Your task to perform on an android device: turn off notifications in google photos Image 0: 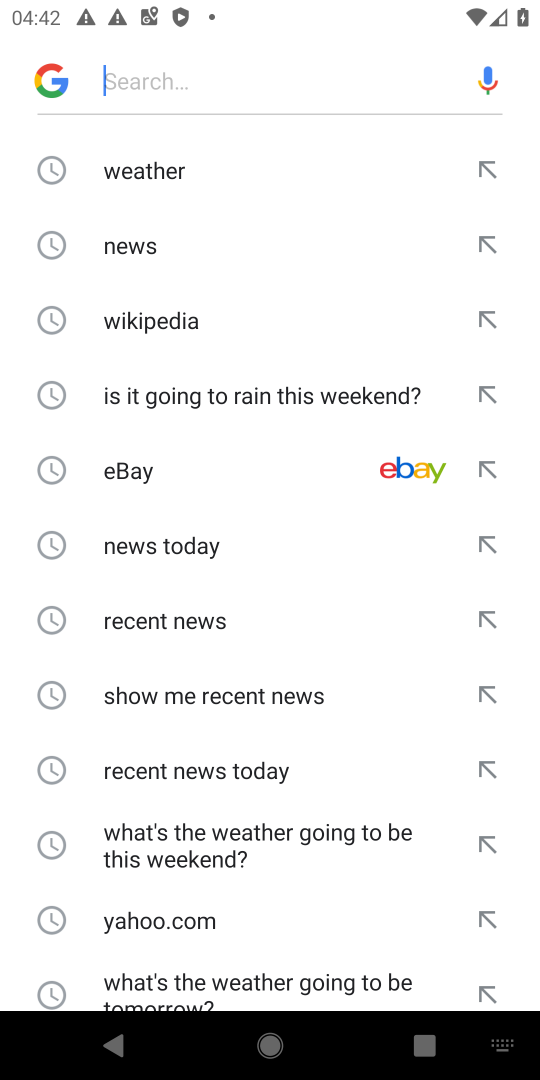
Step 0: press back button
Your task to perform on an android device: turn off notifications in google photos Image 1: 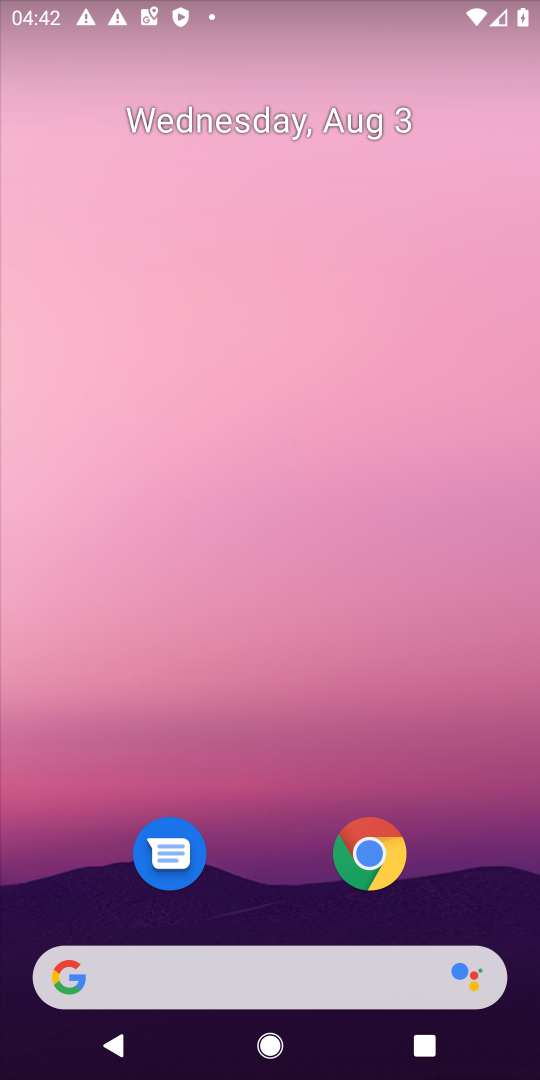
Step 1: drag from (518, 914) to (334, 0)
Your task to perform on an android device: turn off notifications in google photos Image 2: 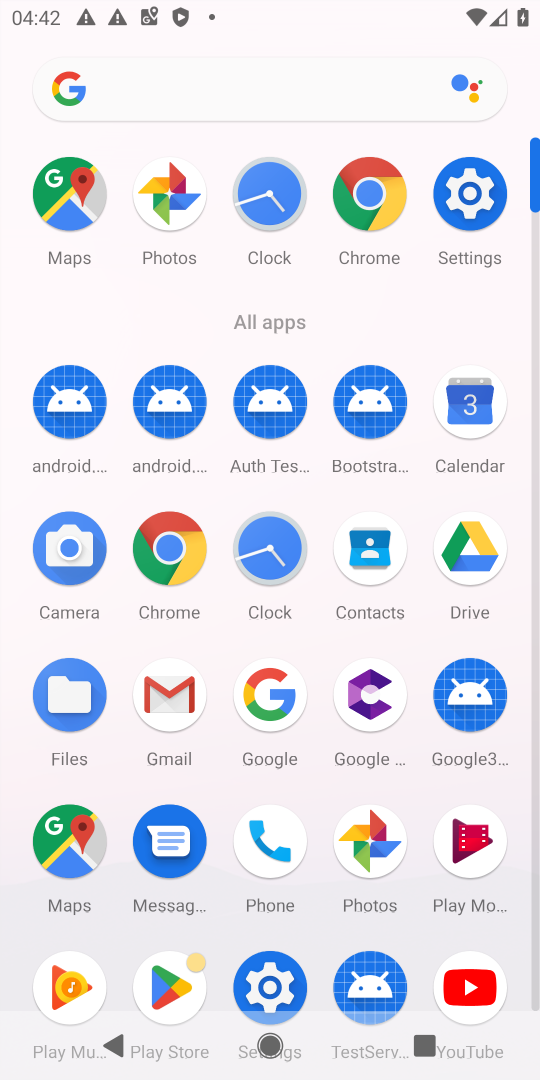
Step 2: click (362, 840)
Your task to perform on an android device: turn off notifications in google photos Image 3: 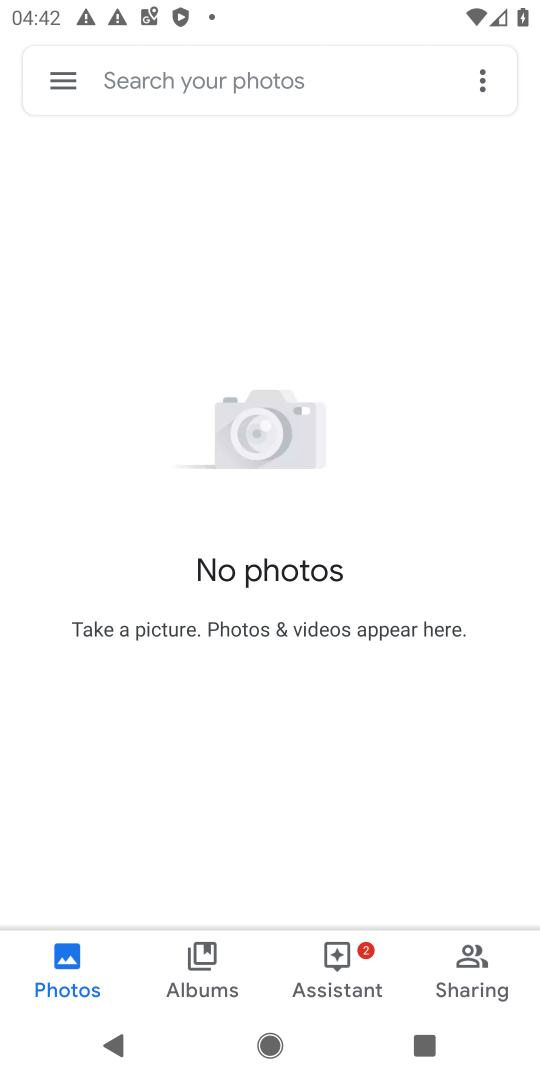
Step 3: click (70, 87)
Your task to perform on an android device: turn off notifications in google photos Image 4: 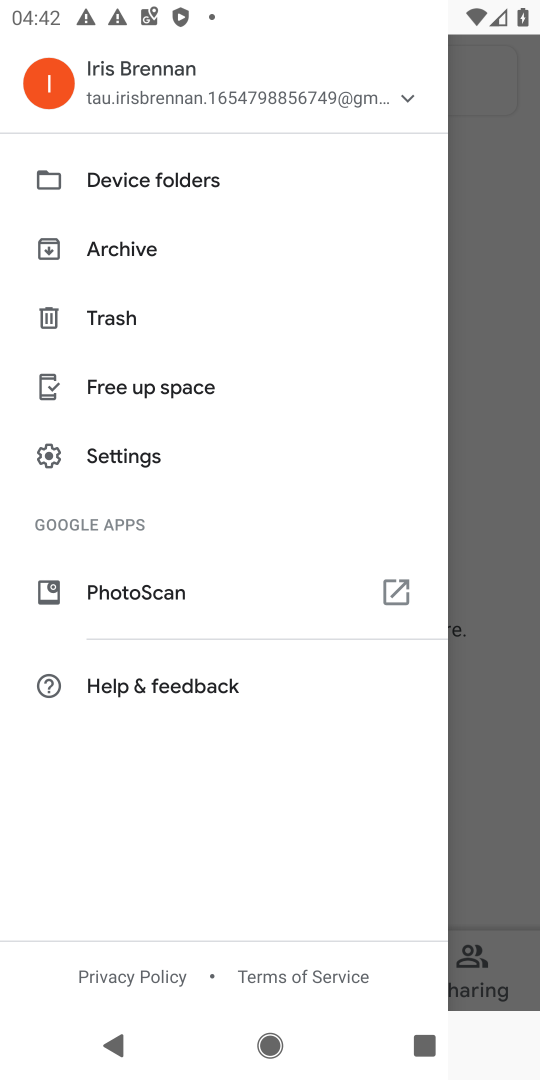
Step 4: click (151, 460)
Your task to perform on an android device: turn off notifications in google photos Image 5: 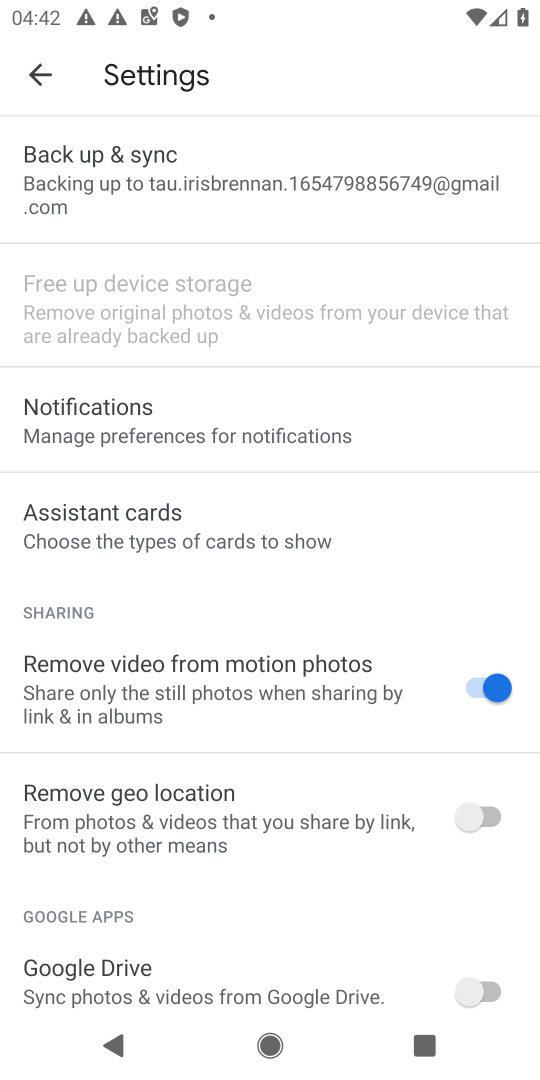
Step 5: click (201, 434)
Your task to perform on an android device: turn off notifications in google photos Image 6: 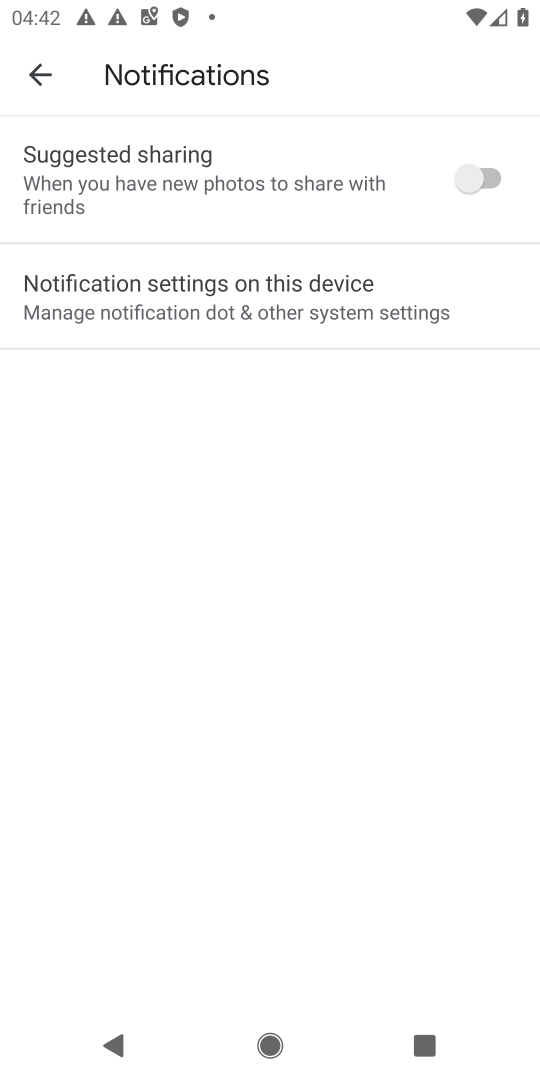
Step 6: click (456, 329)
Your task to perform on an android device: turn off notifications in google photos Image 7: 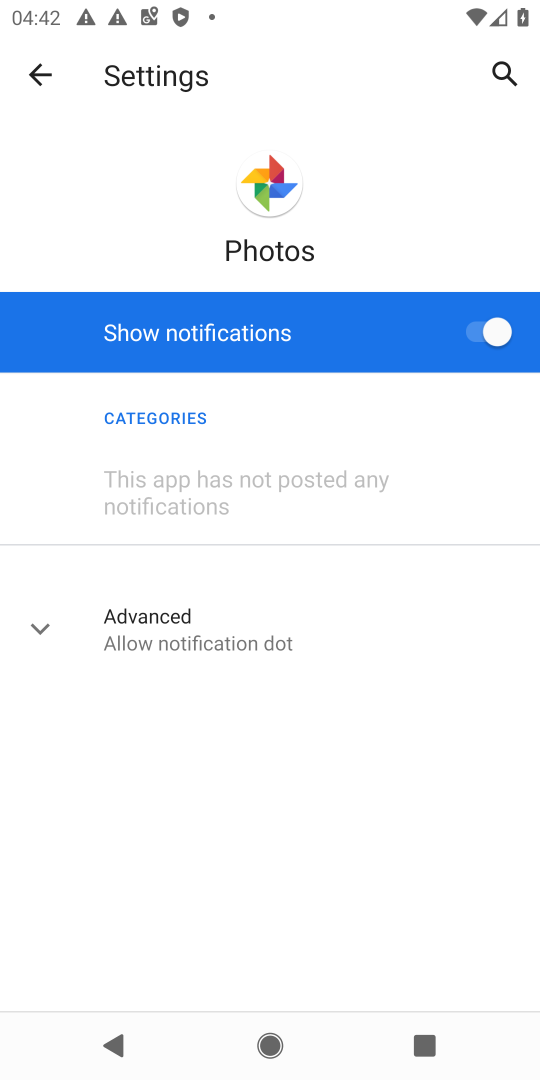
Step 7: click (498, 331)
Your task to perform on an android device: turn off notifications in google photos Image 8: 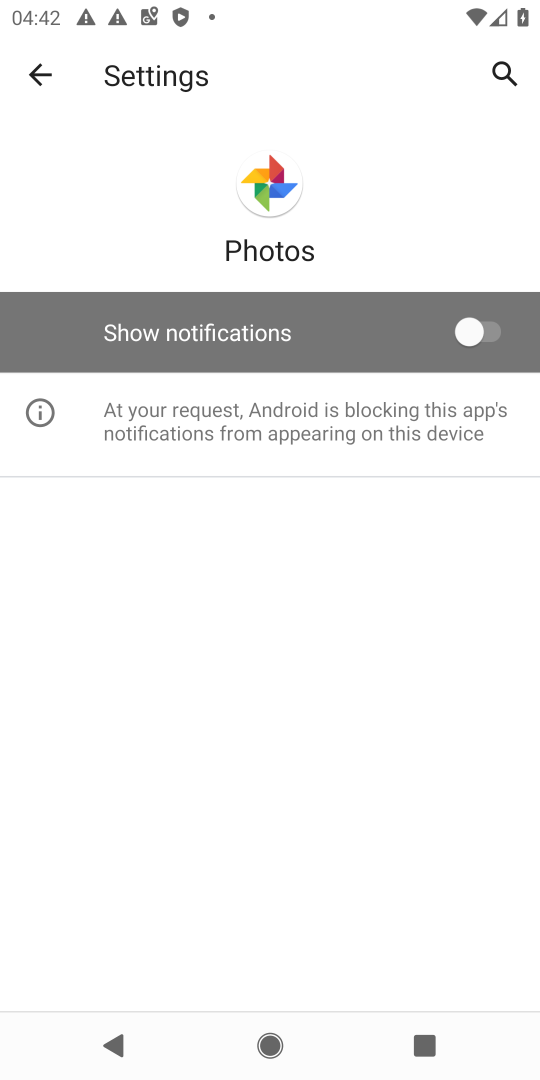
Step 8: task complete